Your task to perform on an android device: turn off location history Image 0: 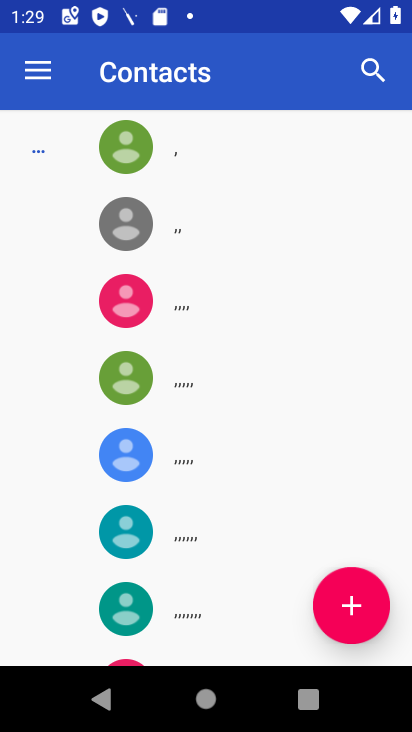
Step 0: press home button
Your task to perform on an android device: turn off location history Image 1: 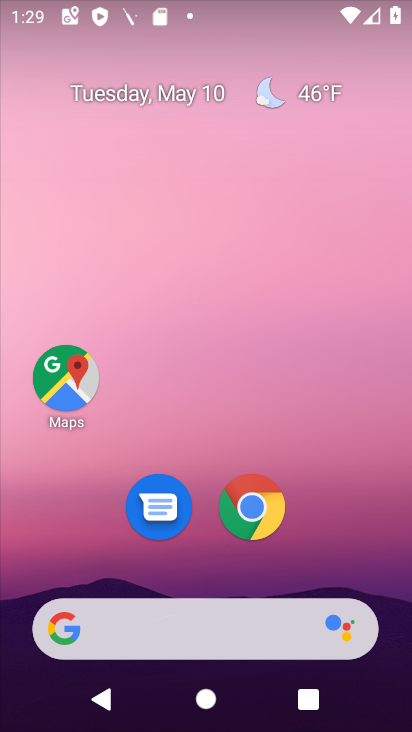
Step 1: drag from (246, 657) to (237, 230)
Your task to perform on an android device: turn off location history Image 2: 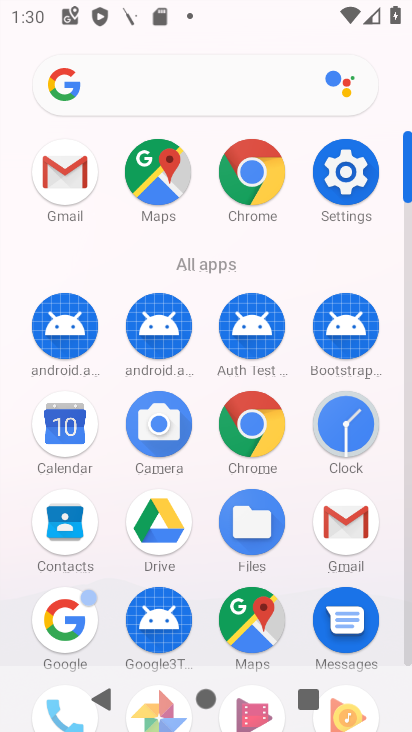
Step 2: click (357, 183)
Your task to perform on an android device: turn off location history Image 3: 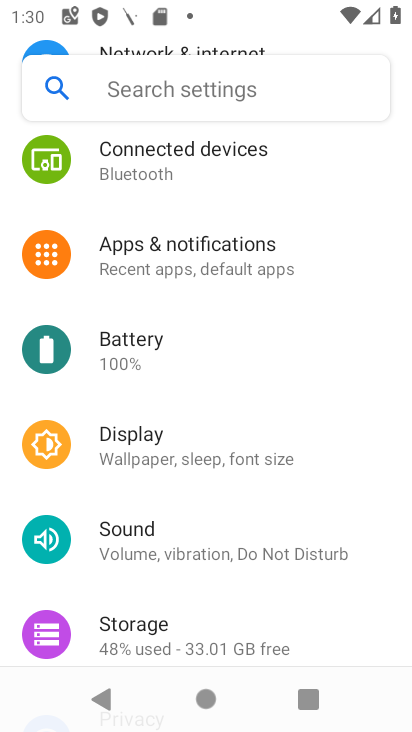
Step 3: click (155, 82)
Your task to perform on an android device: turn off location history Image 4: 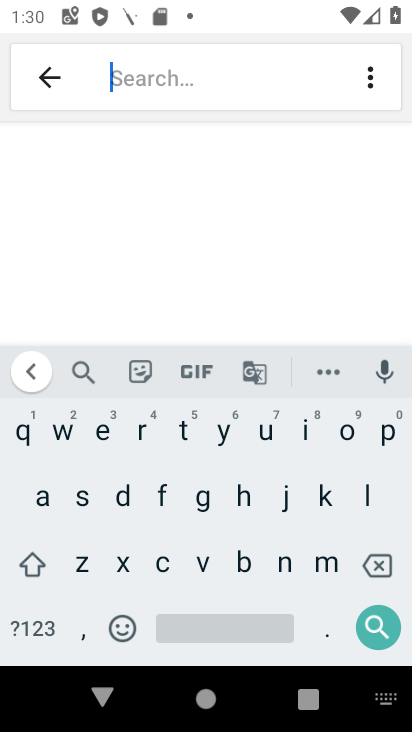
Step 4: click (365, 496)
Your task to perform on an android device: turn off location history Image 5: 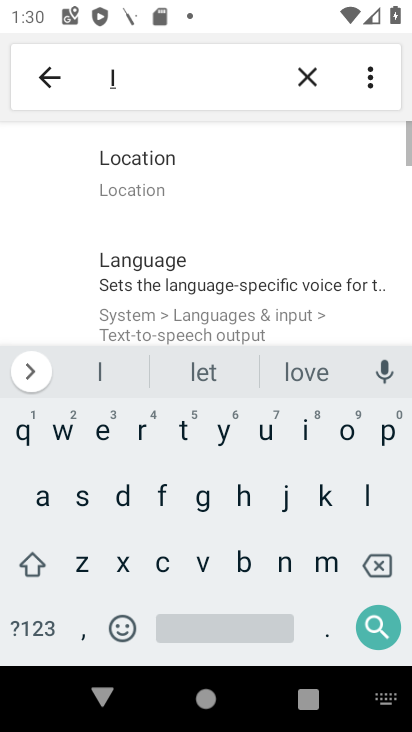
Step 5: click (337, 435)
Your task to perform on an android device: turn off location history Image 6: 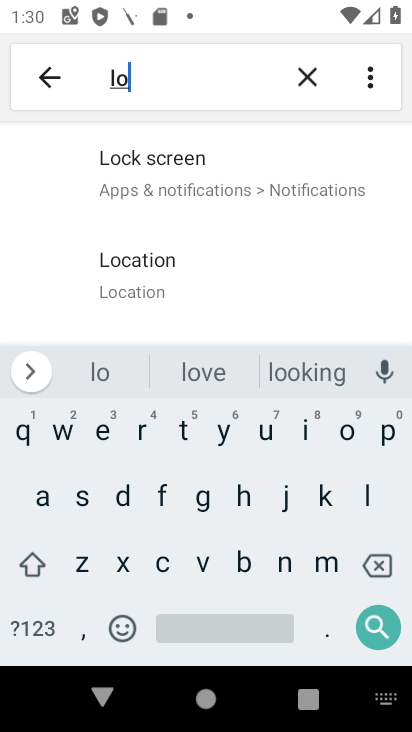
Step 6: click (180, 276)
Your task to perform on an android device: turn off location history Image 7: 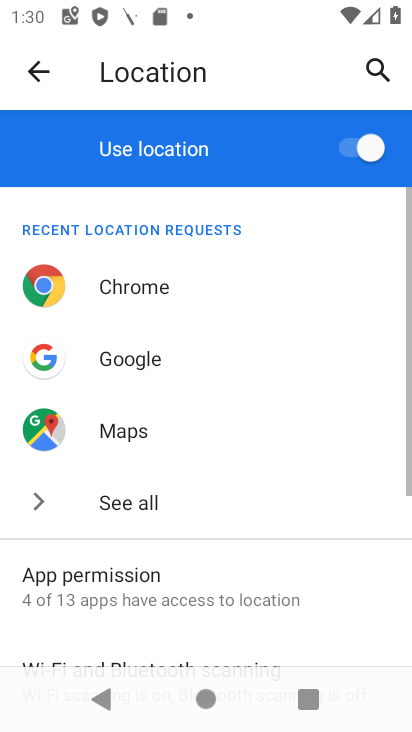
Step 7: task complete